Your task to perform on an android device: turn off picture-in-picture Image 0: 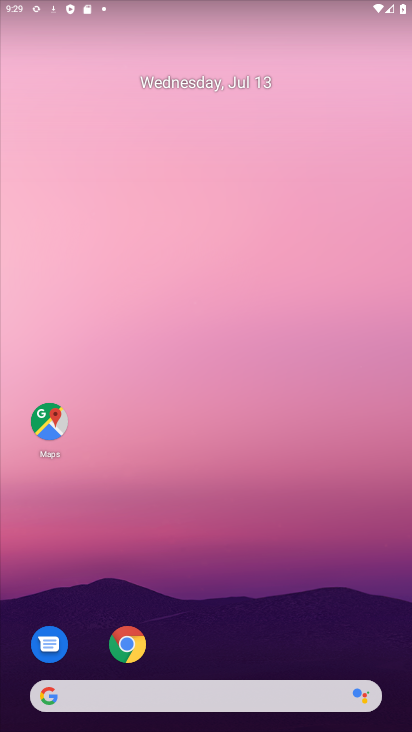
Step 0: drag from (234, 606) to (348, 87)
Your task to perform on an android device: turn off picture-in-picture Image 1: 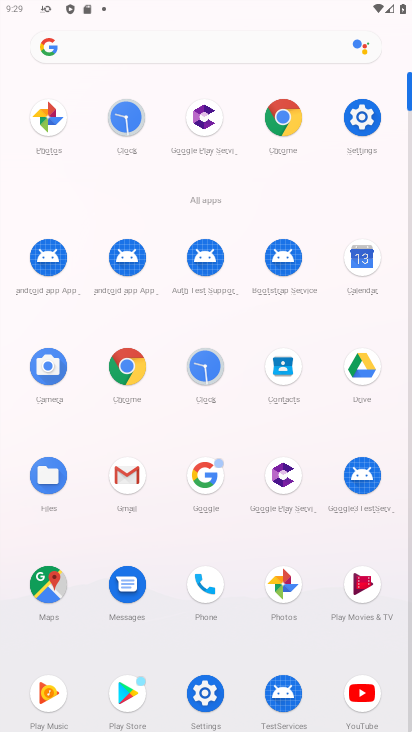
Step 1: click (198, 690)
Your task to perform on an android device: turn off picture-in-picture Image 2: 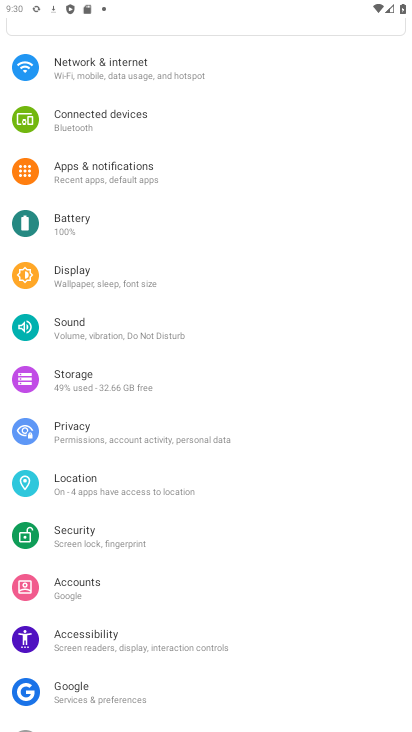
Step 2: click (161, 669)
Your task to perform on an android device: turn off picture-in-picture Image 3: 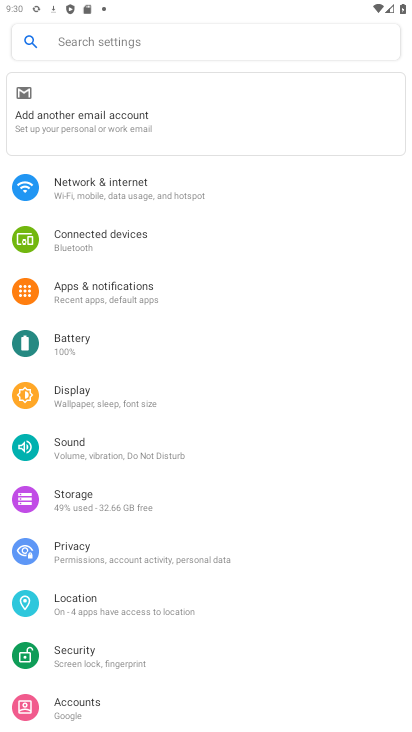
Step 3: click (131, 296)
Your task to perform on an android device: turn off picture-in-picture Image 4: 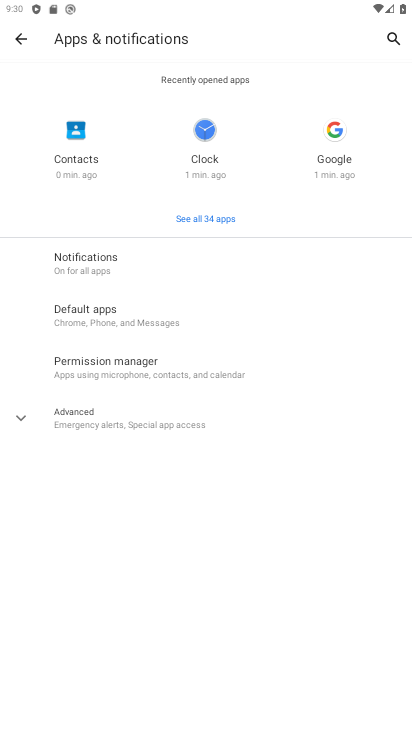
Step 4: click (138, 424)
Your task to perform on an android device: turn off picture-in-picture Image 5: 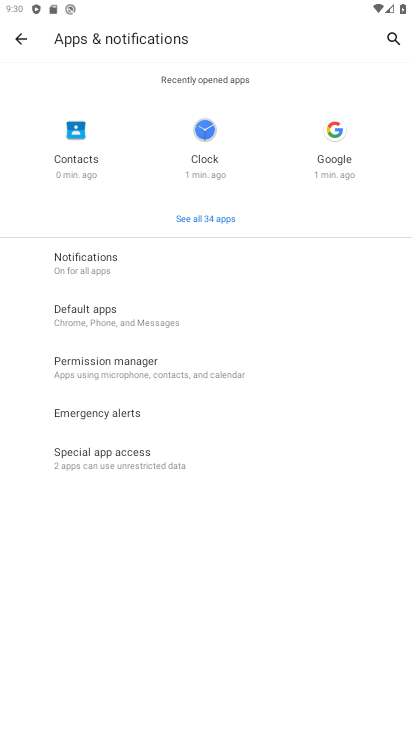
Step 5: click (153, 454)
Your task to perform on an android device: turn off picture-in-picture Image 6: 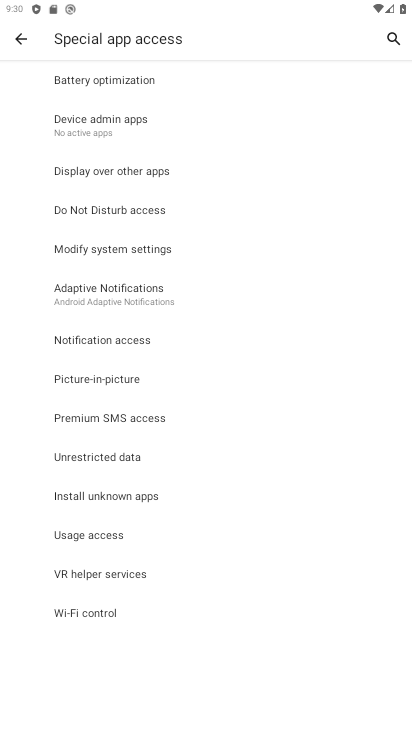
Step 6: click (141, 385)
Your task to perform on an android device: turn off picture-in-picture Image 7: 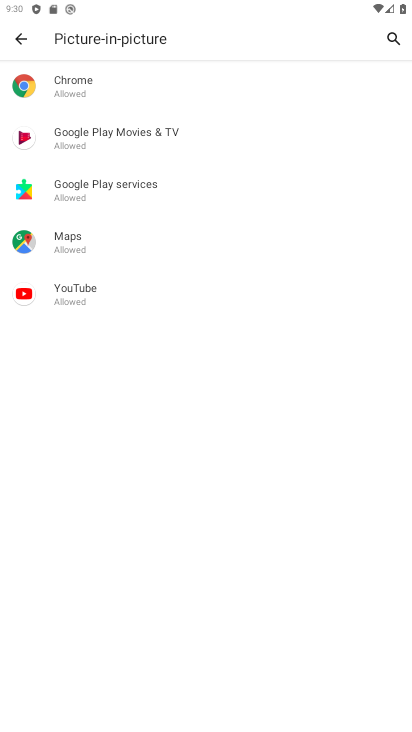
Step 7: click (145, 90)
Your task to perform on an android device: turn off picture-in-picture Image 8: 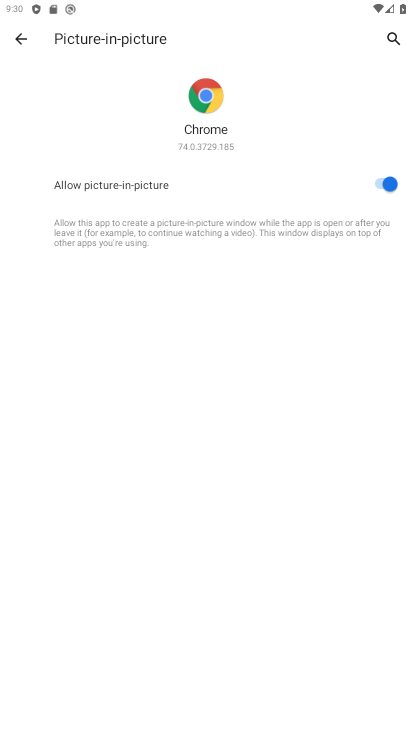
Step 8: click (370, 175)
Your task to perform on an android device: turn off picture-in-picture Image 9: 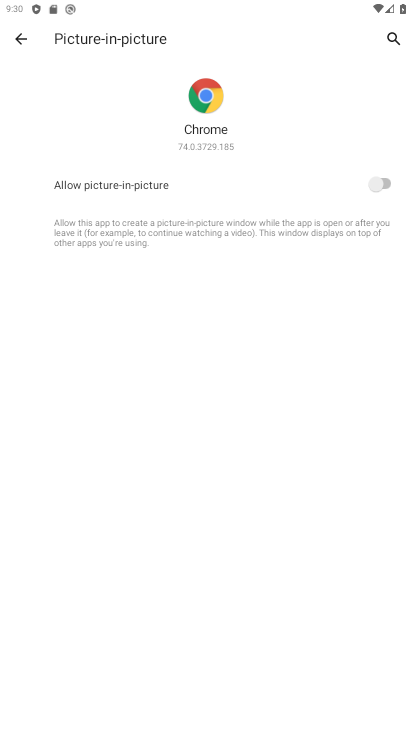
Step 9: press back button
Your task to perform on an android device: turn off picture-in-picture Image 10: 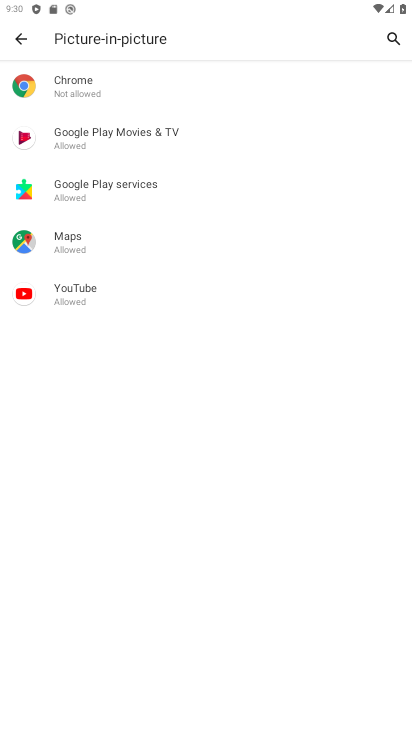
Step 10: click (190, 137)
Your task to perform on an android device: turn off picture-in-picture Image 11: 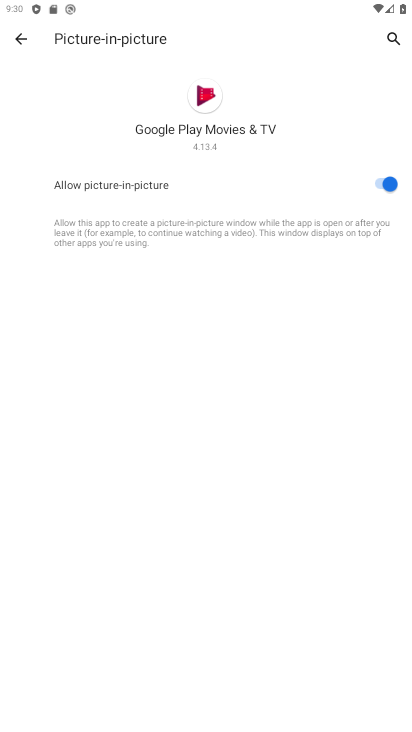
Step 11: click (379, 181)
Your task to perform on an android device: turn off picture-in-picture Image 12: 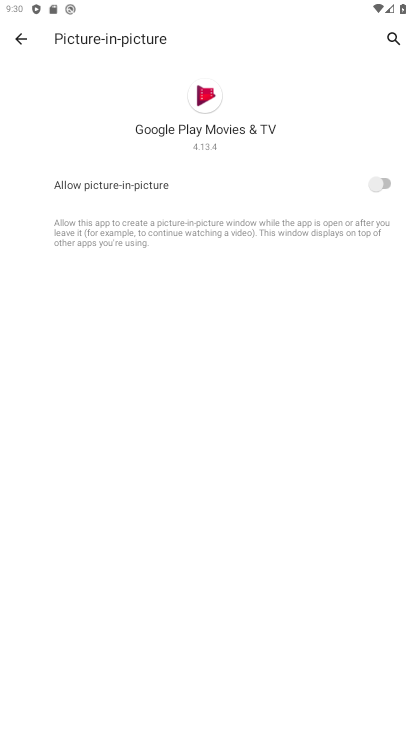
Step 12: press back button
Your task to perform on an android device: turn off picture-in-picture Image 13: 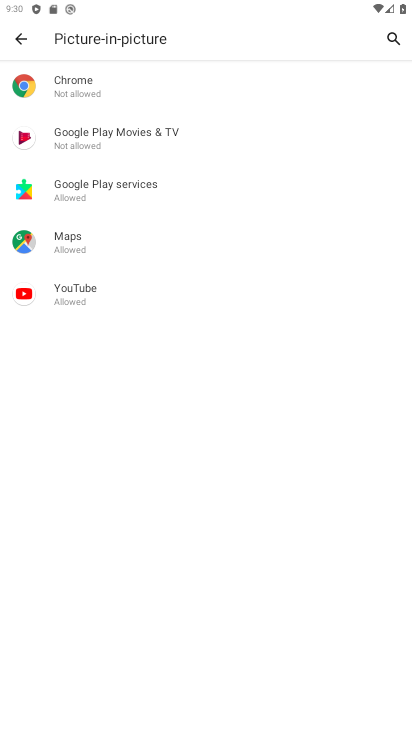
Step 13: click (171, 197)
Your task to perform on an android device: turn off picture-in-picture Image 14: 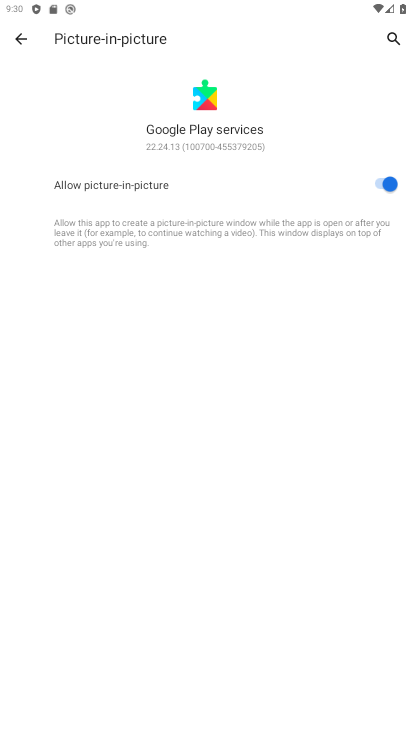
Step 14: click (382, 175)
Your task to perform on an android device: turn off picture-in-picture Image 15: 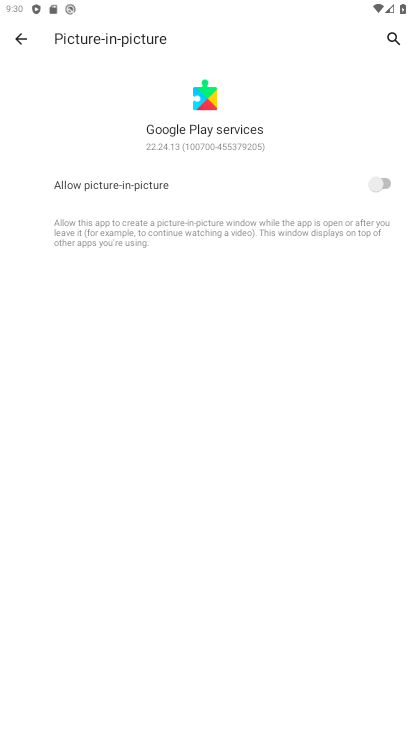
Step 15: press back button
Your task to perform on an android device: turn off picture-in-picture Image 16: 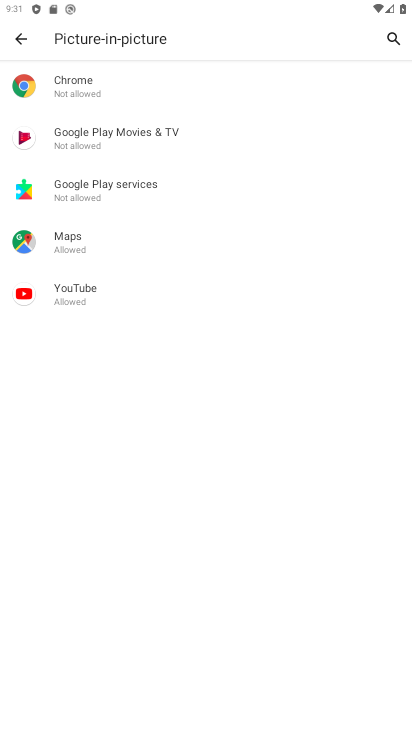
Step 16: click (94, 250)
Your task to perform on an android device: turn off picture-in-picture Image 17: 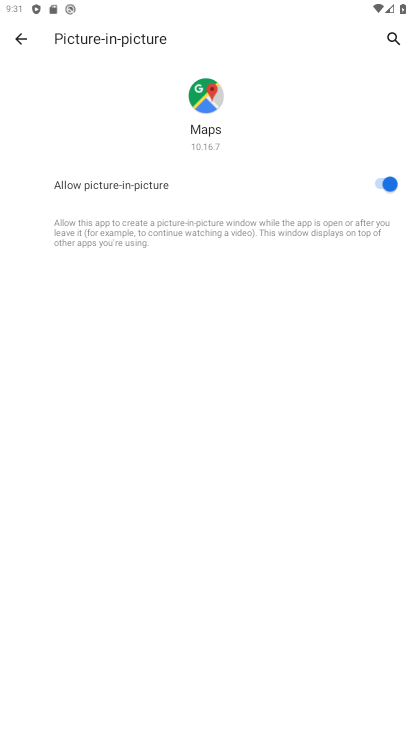
Step 17: click (376, 189)
Your task to perform on an android device: turn off picture-in-picture Image 18: 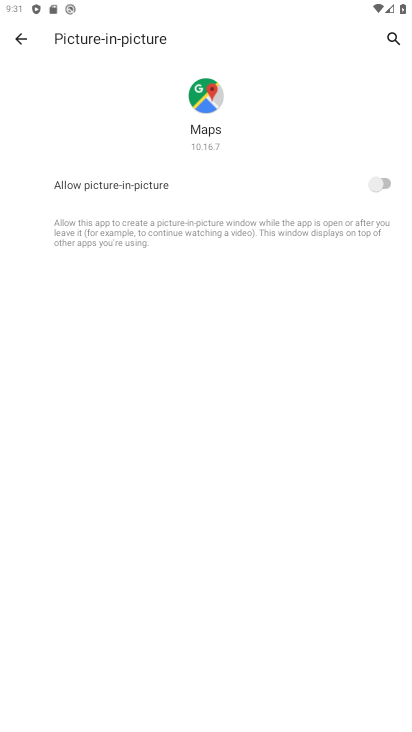
Step 18: press back button
Your task to perform on an android device: turn off picture-in-picture Image 19: 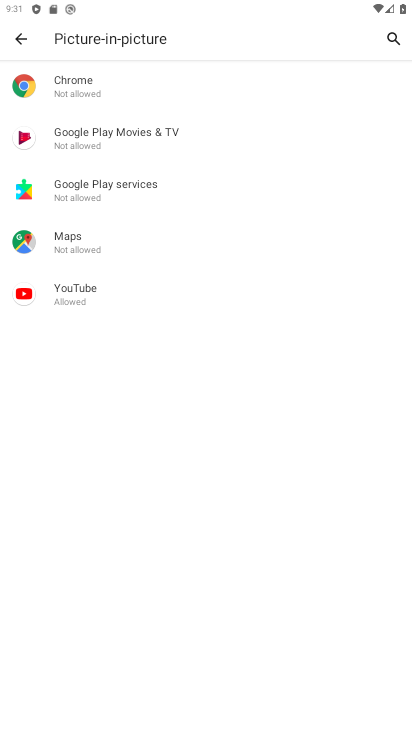
Step 19: click (97, 294)
Your task to perform on an android device: turn off picture-in-picture Image 20: 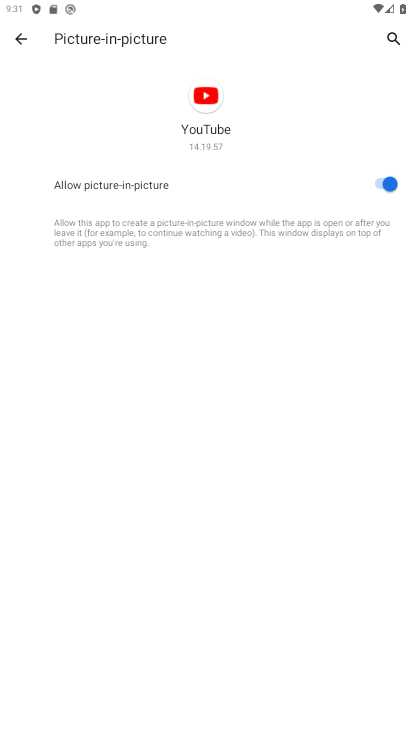
Step 20: click (376, 186)
Your task to perform on an android device: turn off picture-in-picture Image 21: 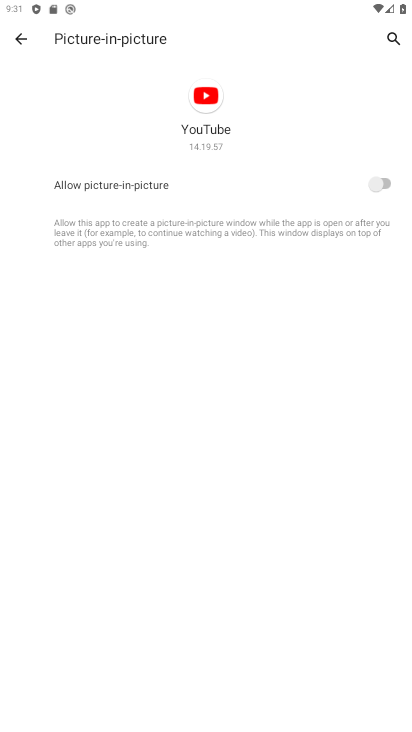
Step 21: task complete